Your task to perform on an android device: Find coffee shops on Maps Image 0: 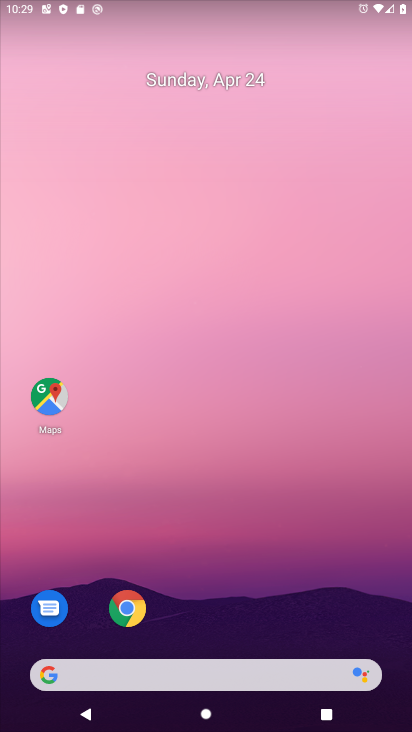
Step 0: drag from (221, 523) to (170, 85)
Your task to perform on an android device: Find coffee shops on Maps Image 1: 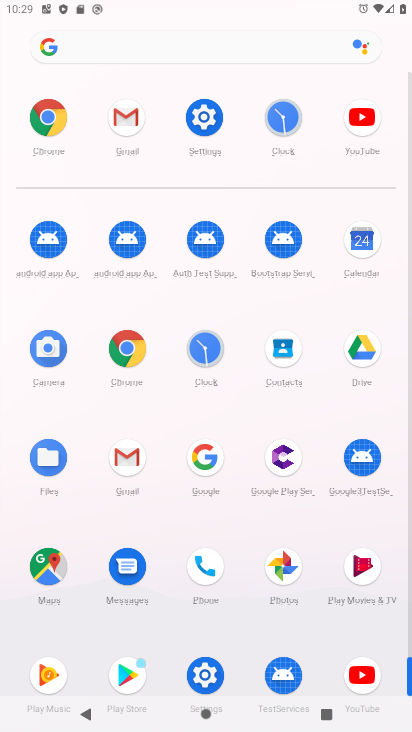
Step 1: drag from (8, 514) to (15, 181)
Your task to perform on an android device: Find coffee shops on Maps Image 2: 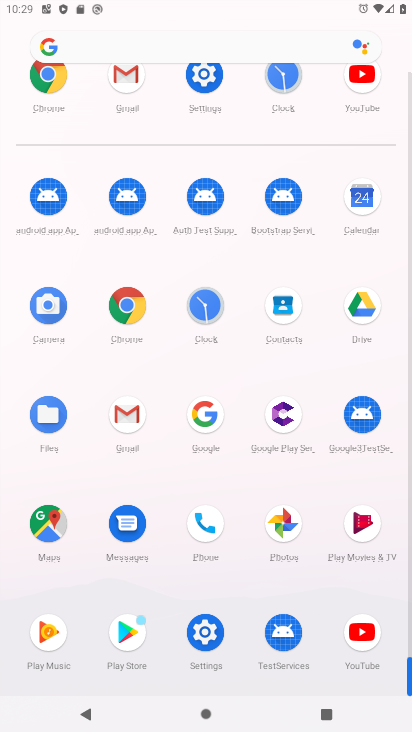
Step 2: drag from (20, 264) to (18, 480)
Your task to perform on an android device: Find coffee shops on Maps Image 3: 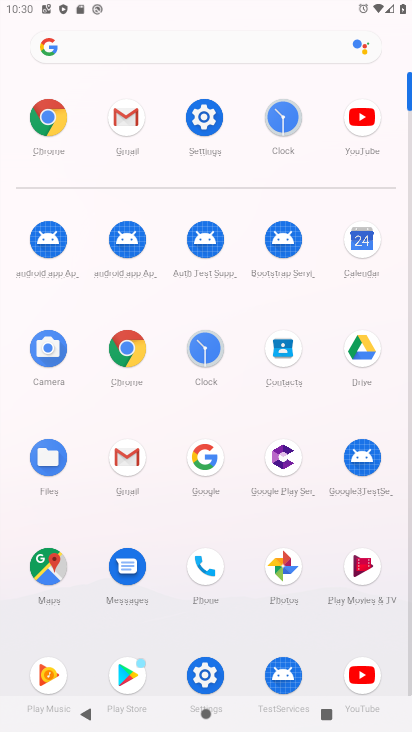
Step 3: drag from (4, 149) to (10, 318)
Your task to perform on an android device: Find coffee shops on Maps Image 4: 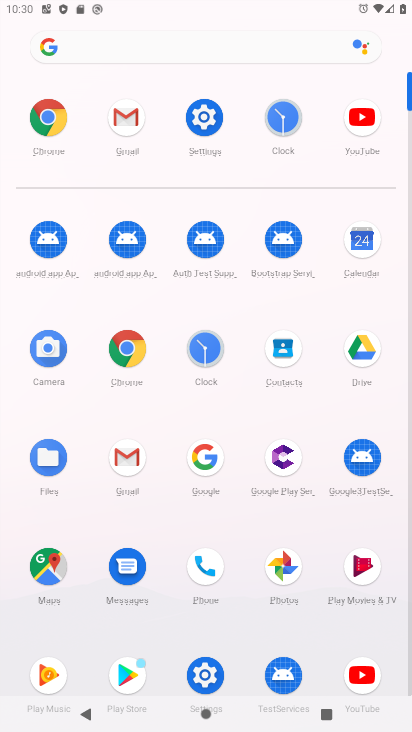
Step 4: click (47, 559)
Your task to perform on an android device: Find coffee shops on Maps Image 5: 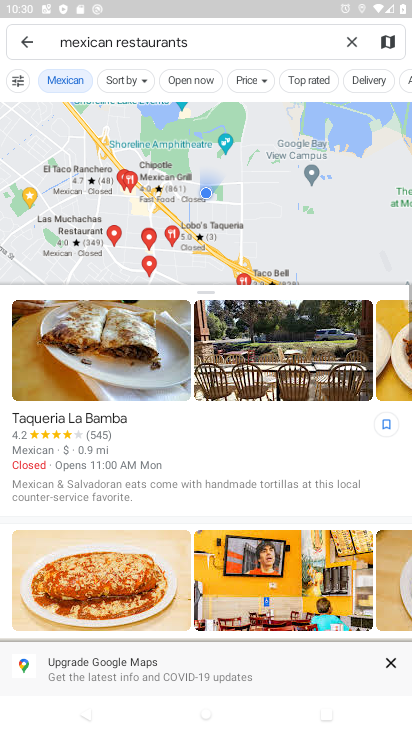
Step 5: click (351, 42)
Your task to perform on an android device: Find coffee shops on Maps Image 6: 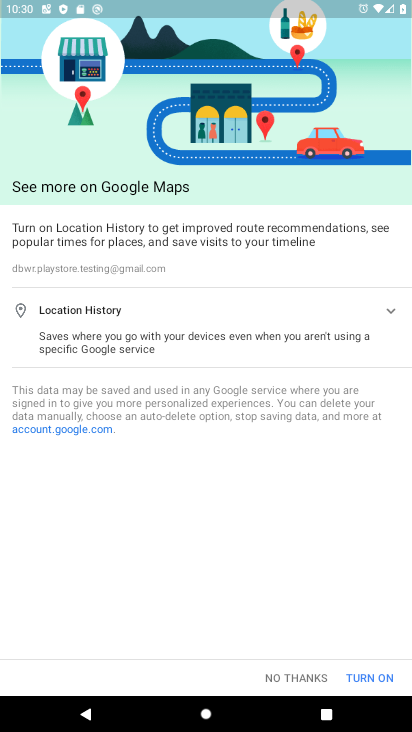
Step 6: click (354, 675)
Your task to perform on an android device: Find coffee shops on Maps Image 7: 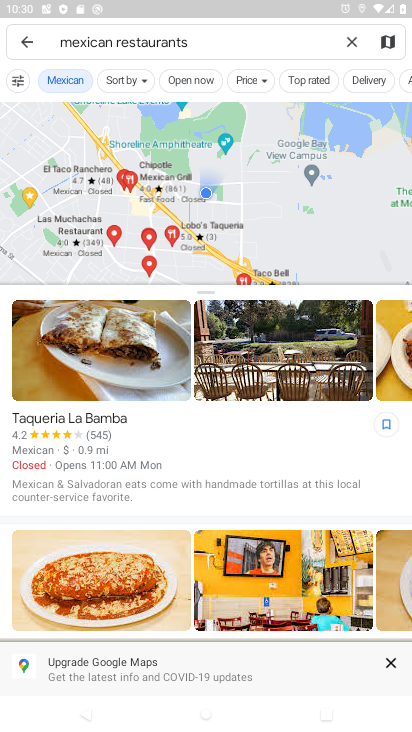
Step 7: click (348, 38)
Your task to perform on an android device: Find coffee shops on Maps Image 8: 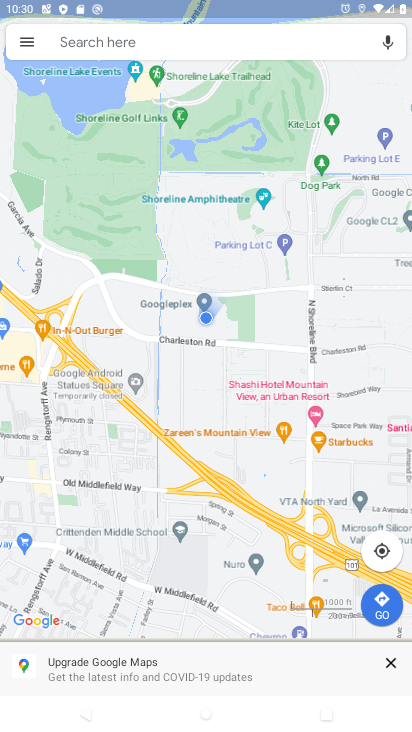
Step 8: click (187, 41)
Your task to perform on an android device: Find coffee shops on Maps Image 9: 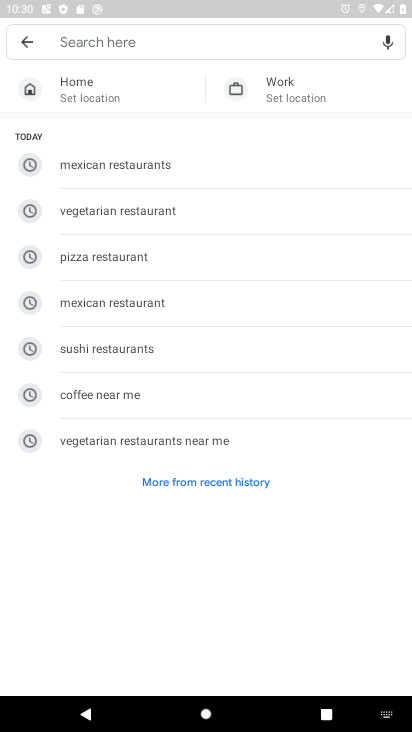
Step 9: click (115, 403)
Your task to perform on an android device: Find coffee shops on Maps Image 10: 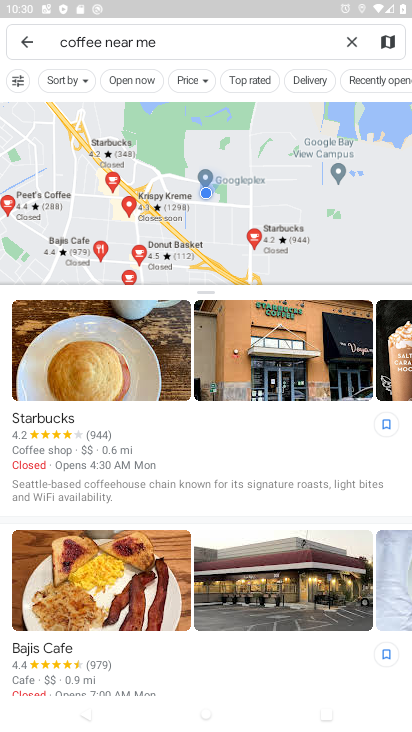
Step 10: click (352, 40)
Your task to perform on an android device: Find coffee shops on Maps Image 11: 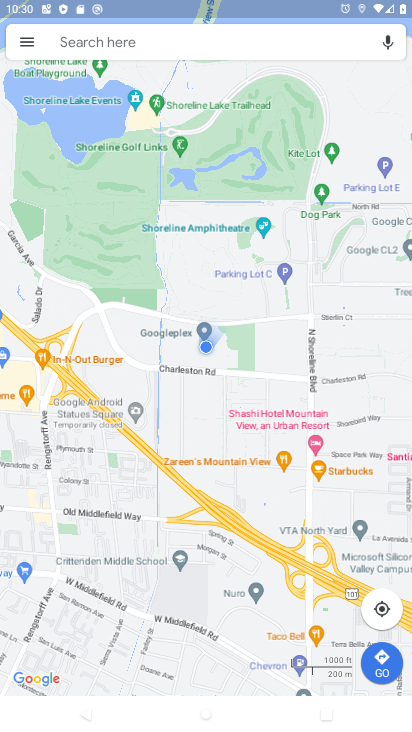
Step 11: click (209, 39)
Your task to perform on an android device: Find coffee shops on Maps Image 12: 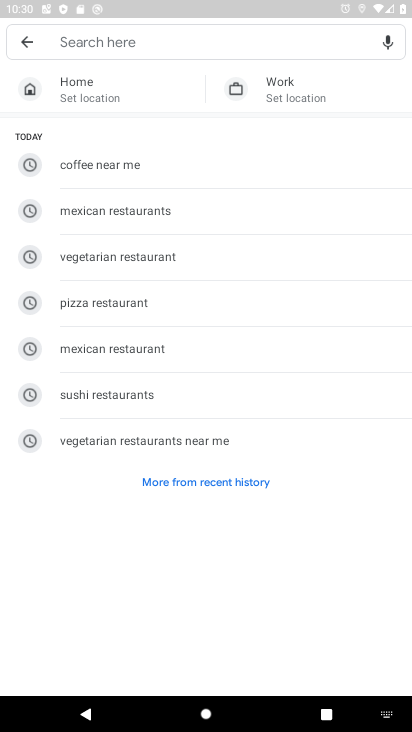
Step 12: click (139, 45)
Your task to perform on an android device: Find coffee shops on Maps Image 13: 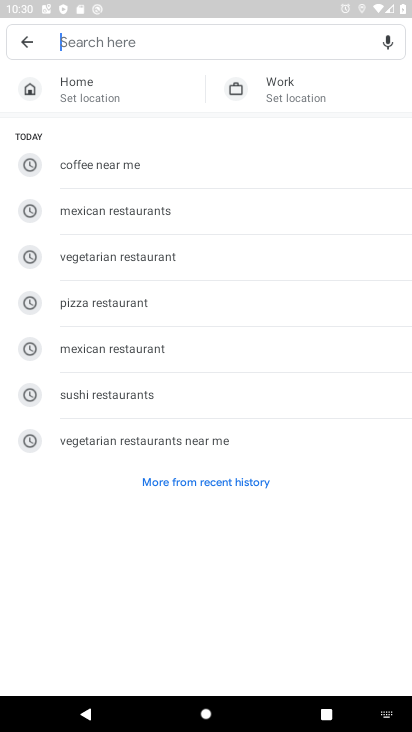
Step 13: type "coffee shops"
Your task to perform on an android device: Find coffee shops on Maps Image 14: 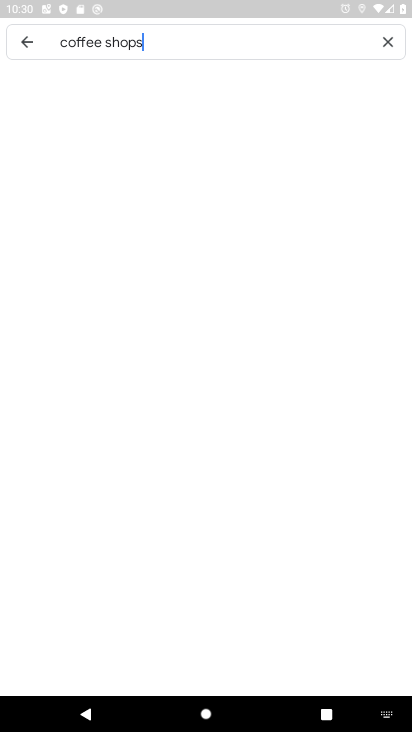
Step 14: type ""
Your task to perform on an android device: Find coffee shops on Maps Image 15: 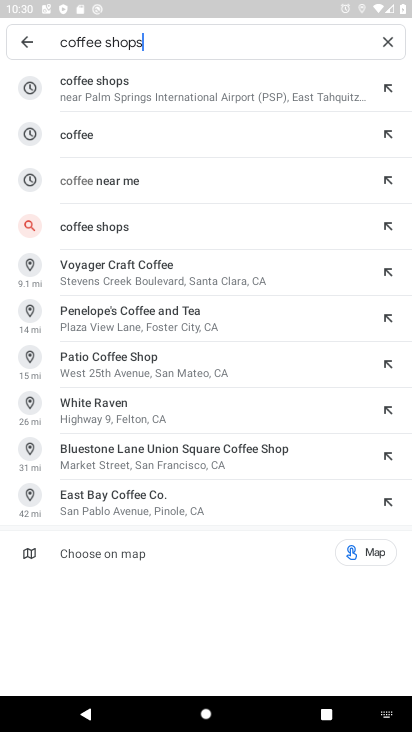
Step 15: click (116, 103)
Your task to perform on an android device: Find coffee shops on Maps Image 16: 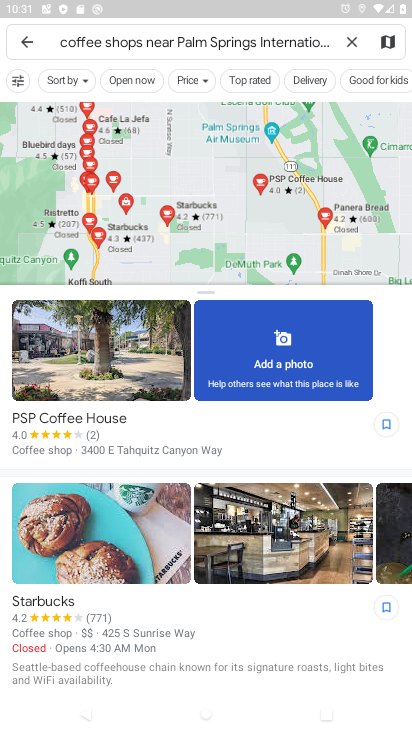
Step 16: task complete